Your task to perform on an android device: toggle sleep mode Image 0: 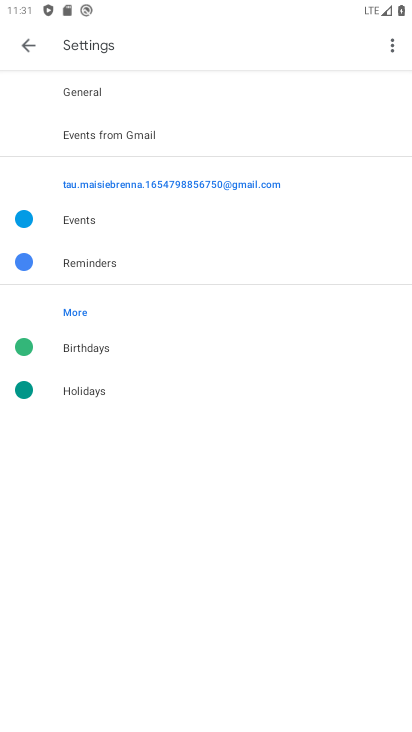
Step 0: press home button
Your task to perform on an android device: toggle sleep mode Image 1: 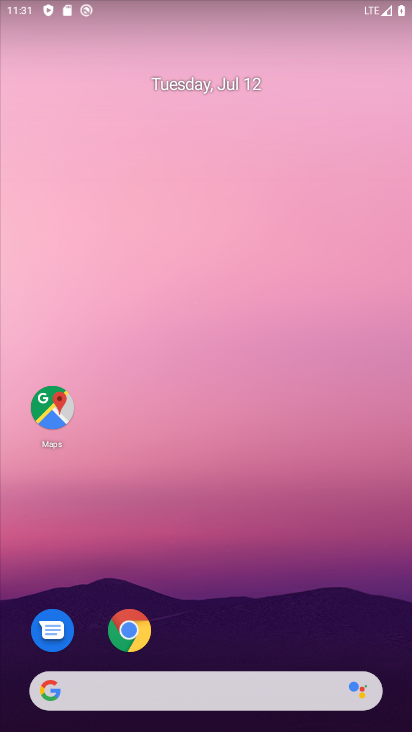
Step 1: drag from (396, 610) to (228, 60)
Your task to perform on an android device: toggle sleep mode Image 2: 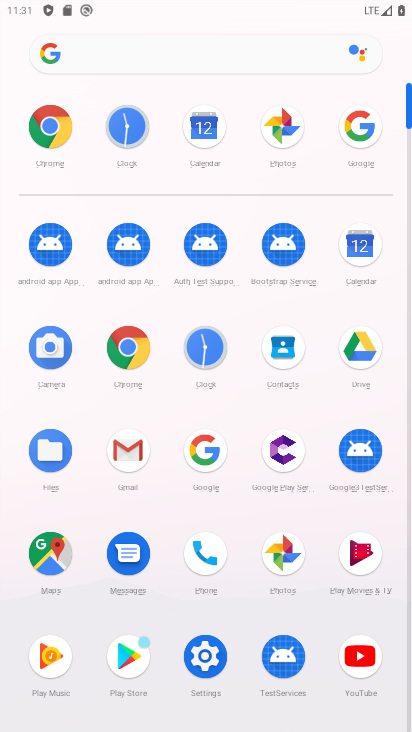
Step 2: click (206, 672)
Your task to perform on an android device: toggle sleep mode Image 3: 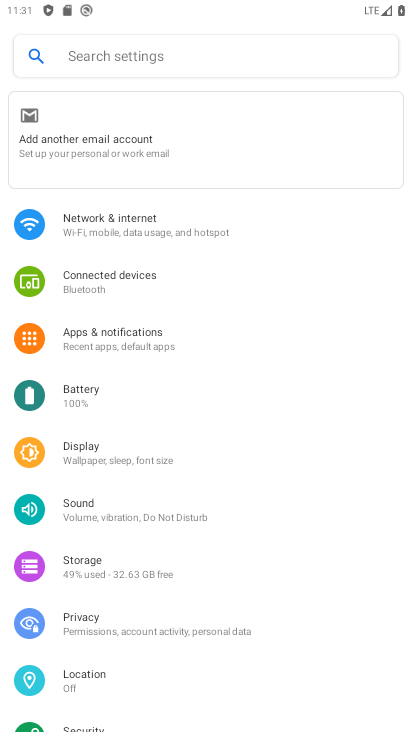
Step 3: task complete